Your task to perform on an android device: clear history in the chrome app Image 0: 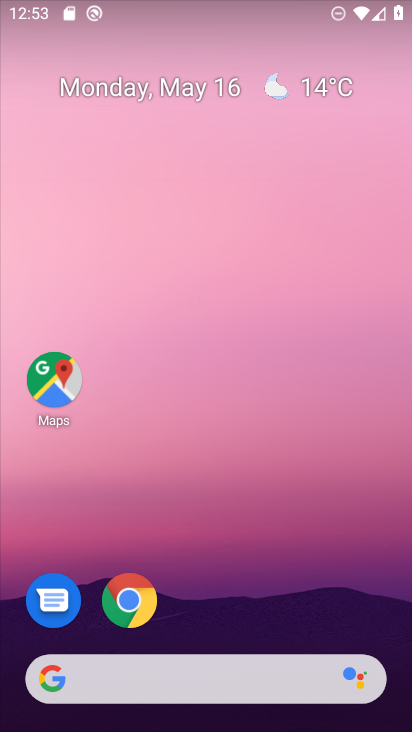
Step 0: drag from (216, 629) to (262, 64)
Your task to perform on an android device: clear history in the chrome app Image 1: 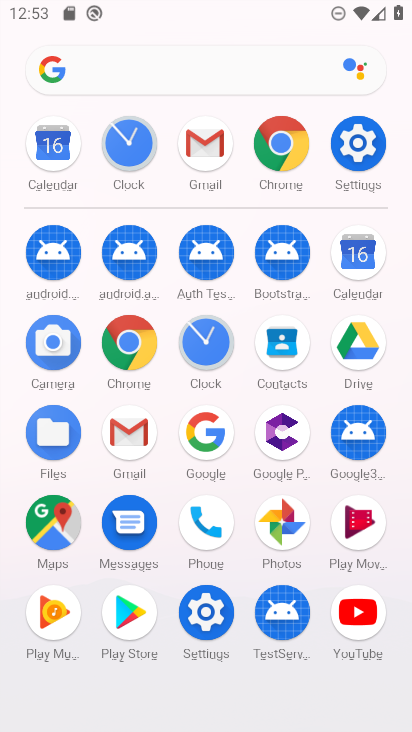
Step 1: click (281, 133)
Your task to perform on an android device: clear history in the chrome app Image 2: 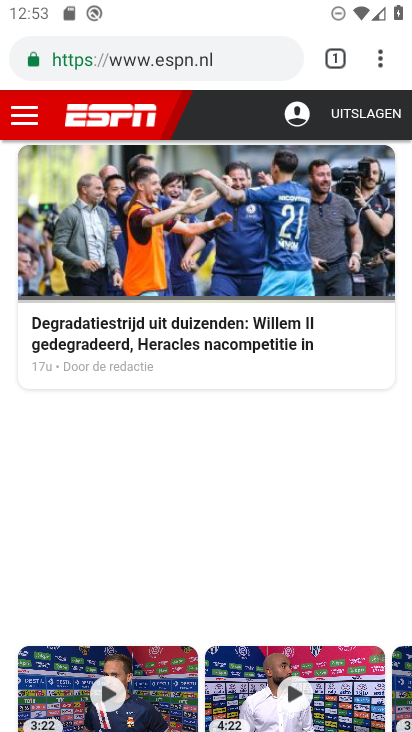
Step 2: click (382, 58)
Your task to perform on an android device: clear history in the chrome app Image 3: 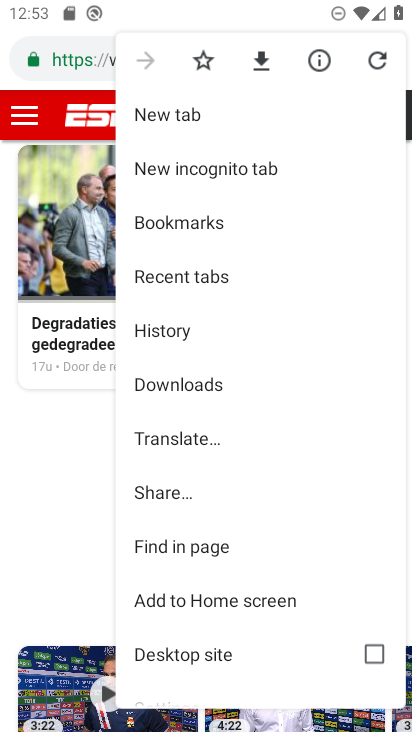
Step 3: click (196, 327)
Your task to perform on an android device: clear history in the chrome app Image 4: 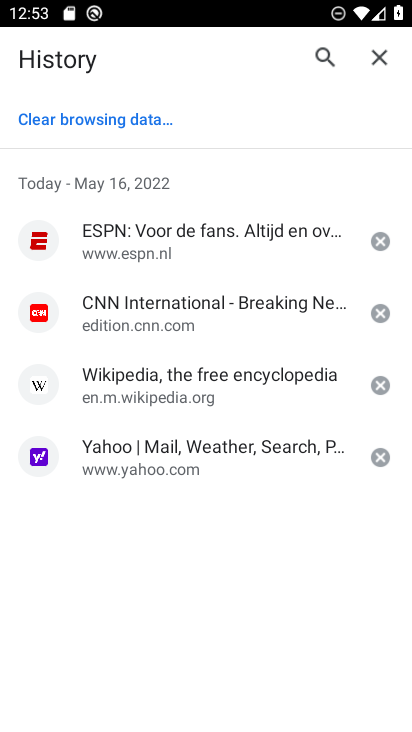
Step 4: click (90, 113)
Your task to perform on an android device: clear history in the chrome app Image 5: 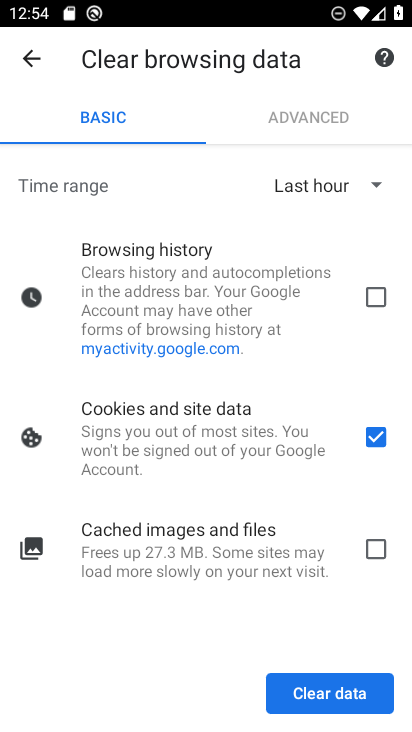
Step 5: click (378, 292)
Your task to perform on an android device: clear history in the chrome app Image 6: 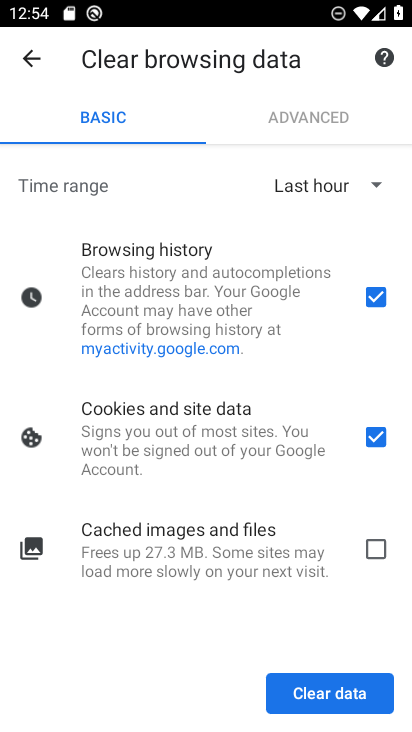
Step 6: click (377, 551)
Your task to perform on an android device: clear history in the chrome app Image 7: 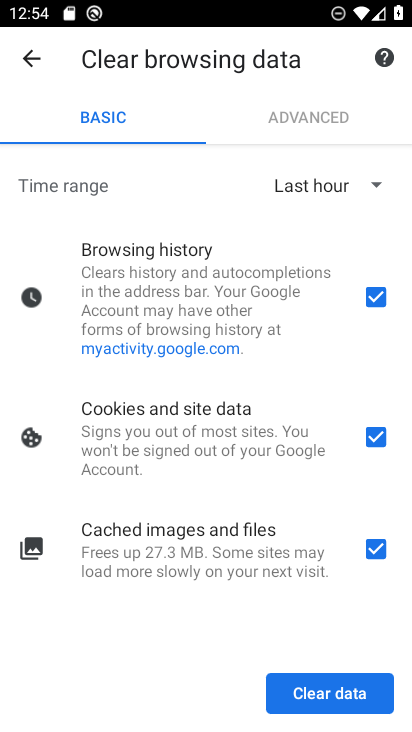
Step 7: click (325, 681)
Your task to perform on an android device: clear history in the chrome app Image 8: 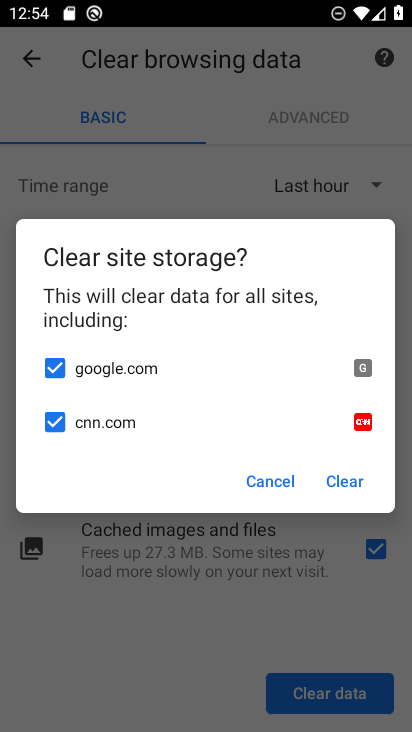
Step 8: click (349, 475)
Your task to perform on an android device: clear history in the chrome app Image 9: 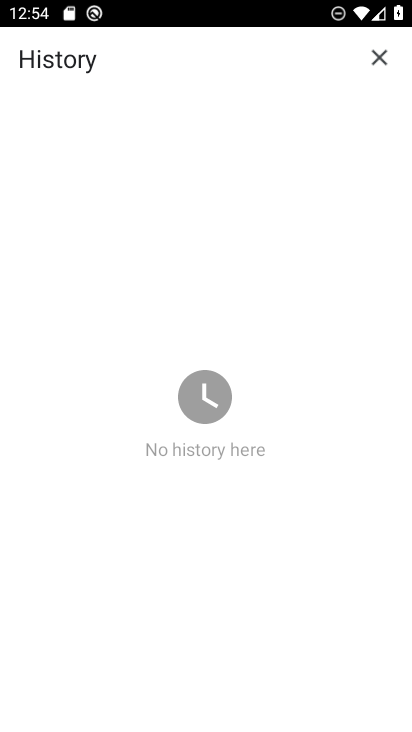
Step 9: task complete